Your task to perform on an android device: open sync settings in chrome Image 0: 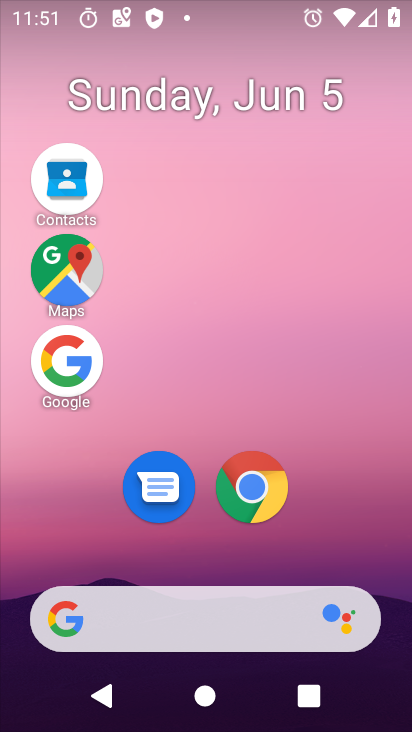
Step 0: drag from (223, 600) to (220, 110)
Your task to perform on an android device: open sync settings in chrome Image 1: 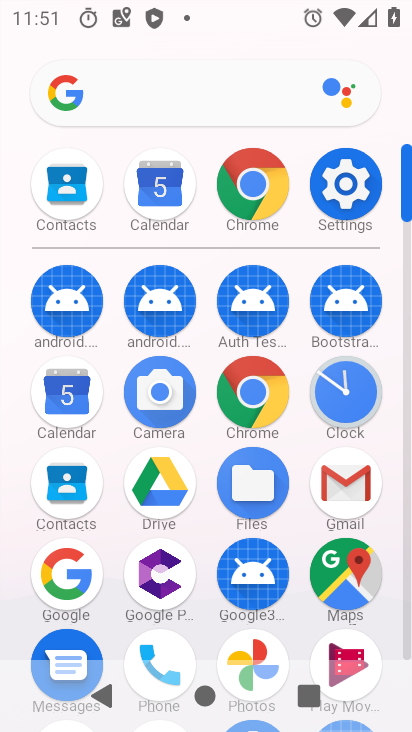
Step 1: click (270, 203)
Your task to perform on an android device: open sync settings in chrome Image 2: 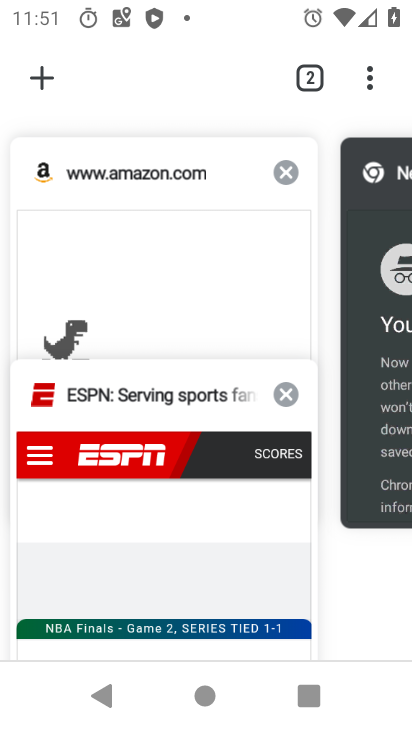
Step 2: click (130, 343)
Your task to perform on an android device: open sync settings in chrome Image 3: 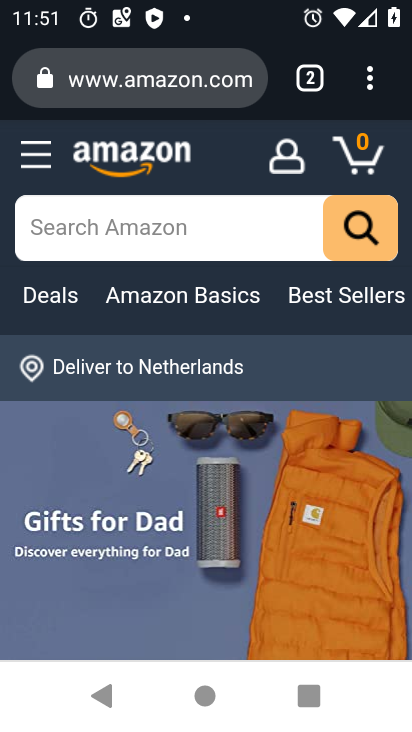
Step 3: click (380, 96)
Your task to perform on an android device: open sync settings in chrome Image 4: 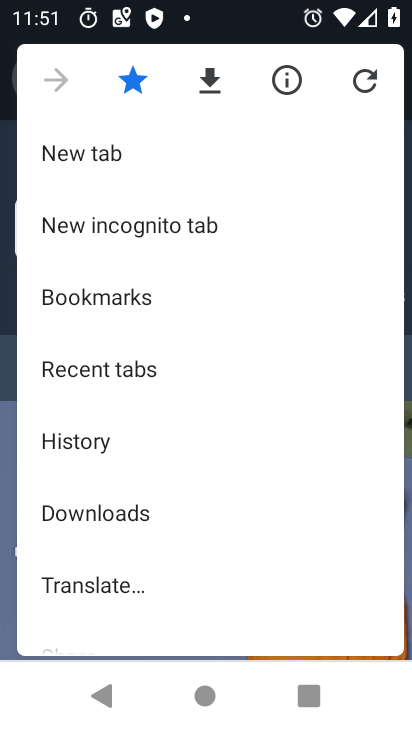
Step 4: drag from (100, 556) to (119, 211)
Your task to perform on an android device: open sync settings in chrome Image 5: 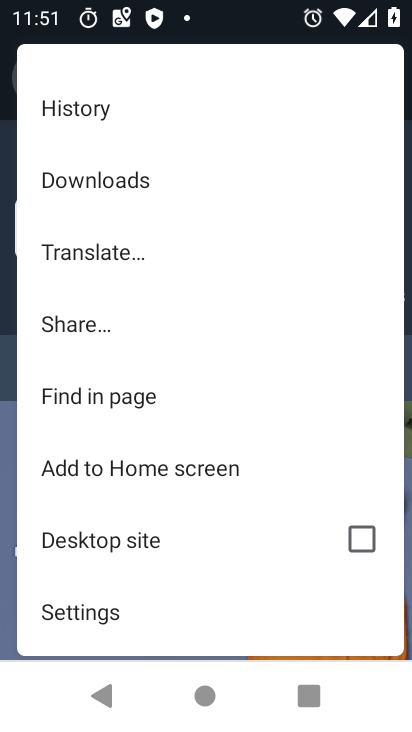
Step 5: click (150, 617)
Your task to perform on an android device: open sync settings in chrome Image 6: 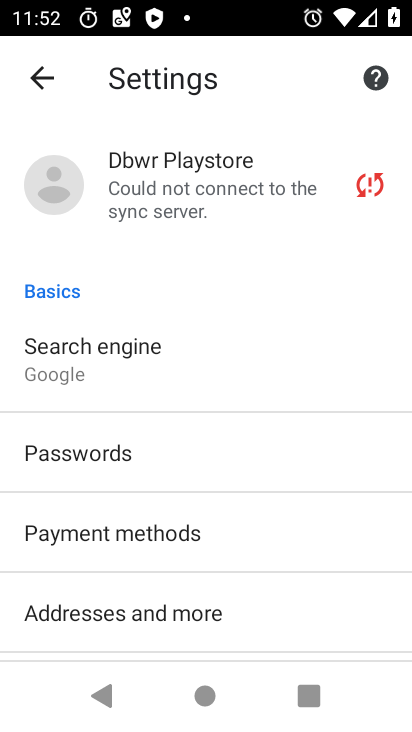
Step 6: click (179, 213)
Your task to perform on an android device: open sync settings in chrome Image 7: 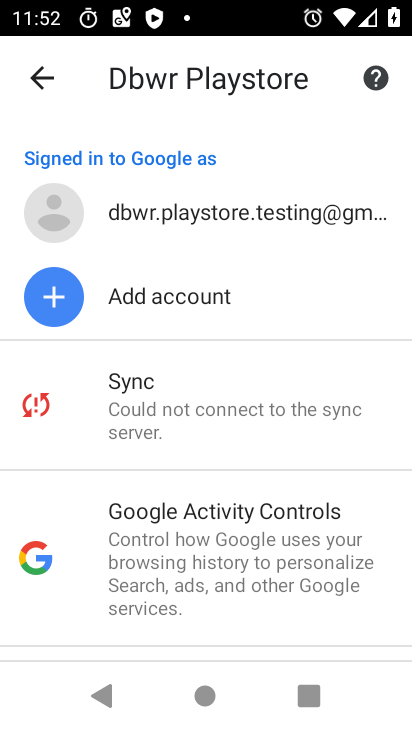
Step 7: click (157, 402)
Your task to perform on an android device: open sync settings in chrome Image 8: 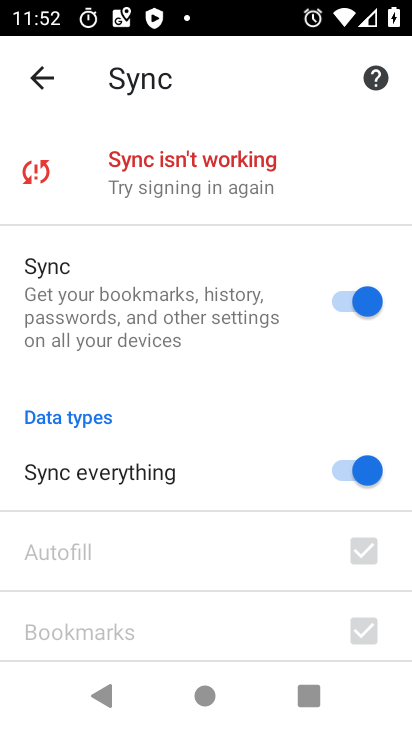
Step 8: task complete